Your task to perform on an android device: visit the assistant section in the google photos Image 0: 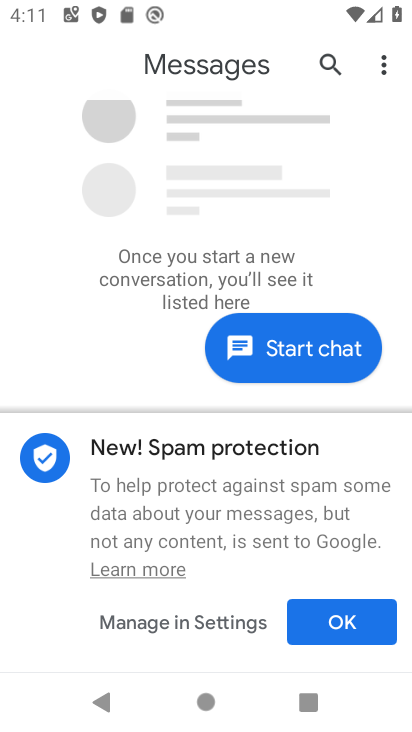
Step 0: press home button
Your task to perform on an android device: visit the assistant section in the google photos Image 1: 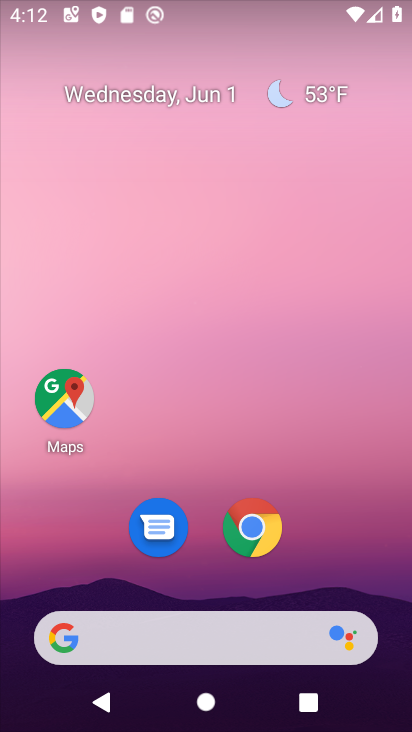
Step 1: drag from (324, 561) to (343, 313)
Your task to perform on an android device: visit the assistant section in the google photos Image 2: 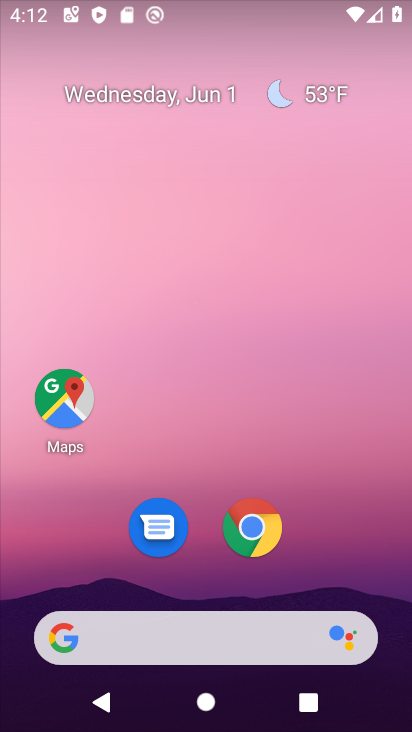
Step 2: drag from (358, 551) to (389, 0)
Your task to perform on an android device: visit the assistant section in the google photos Image 3: 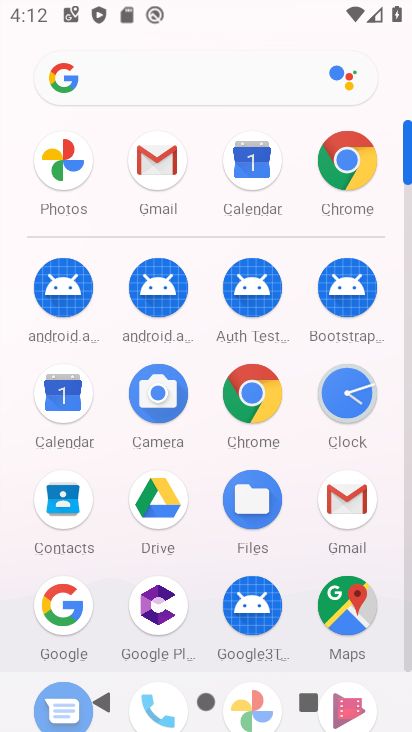
Step 3: drag from (307, 368) to (308, 137)
Your task to perform on an android device: visit the assistant section in the google photos Image 4: 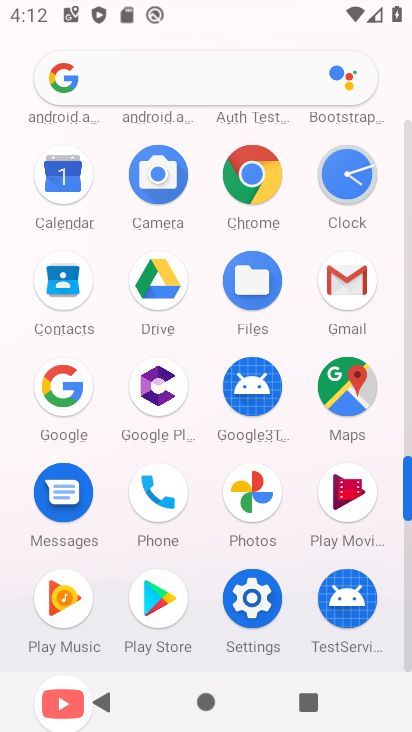
Step 4: click (258, 484)
Your task to perform on an android device: visit the assistant section in the google photos Image 5: 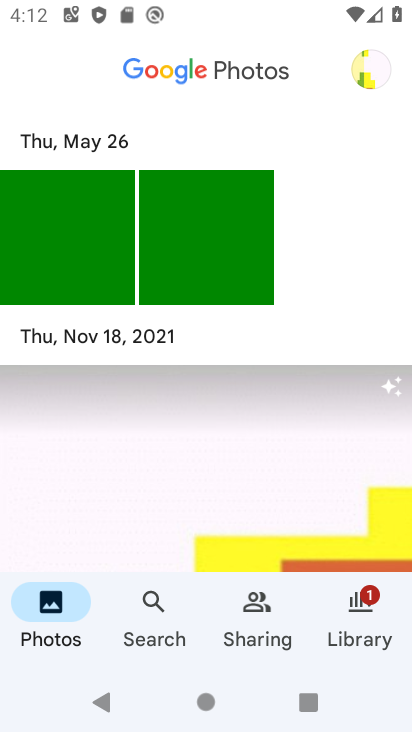
Step 5: task complete